Your task to perform on an android device: delete browsing data in the chrome app Image 0: 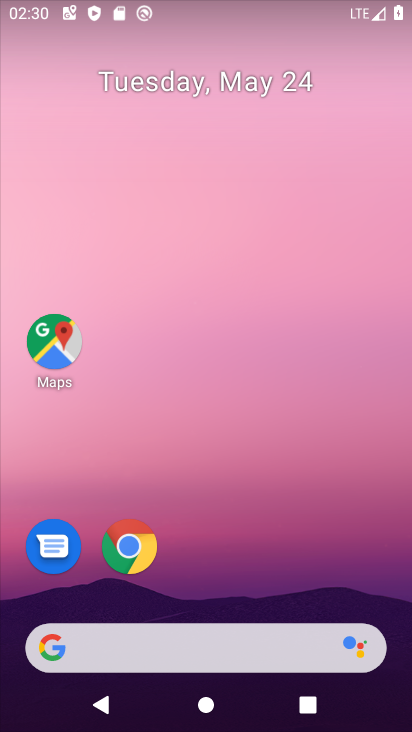
Step 0: drag from (186, 593) to (252, 131)
Your task to perform on an android device: delete browsing data in the chrome app Image 1: 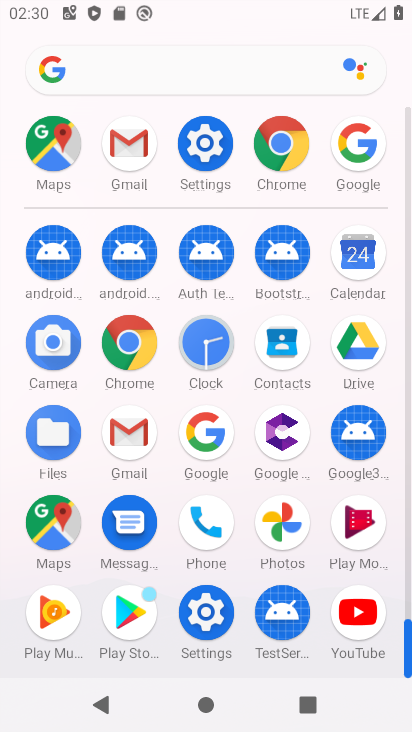
Step 1: click (126, 341)
Your task to perform on an android device: delete browsing data in the chrome app Image 2: 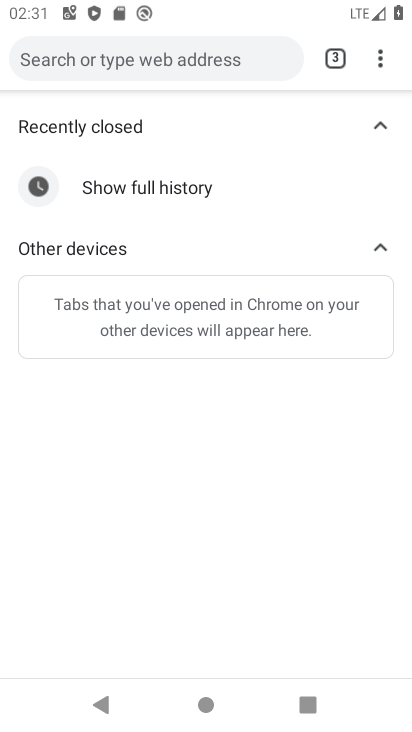
Step 2: click (377, 60)
Your task to perform on an android device: delete browsing data in the chrome app Image 3: 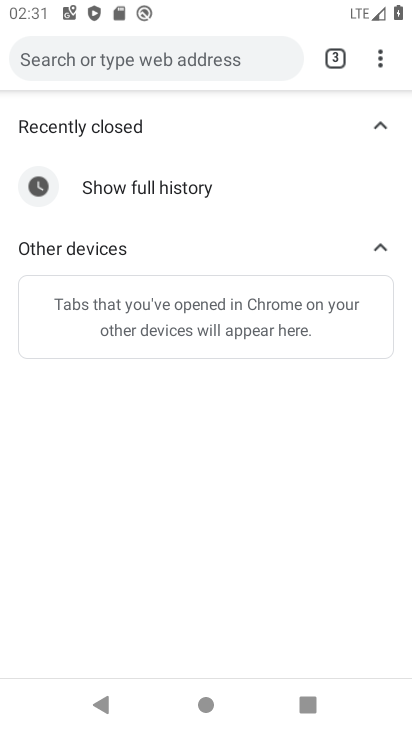
Step 3: click (373, 61)
Your task to perform on an android device: delete browsing data in the chrome app Image 4: 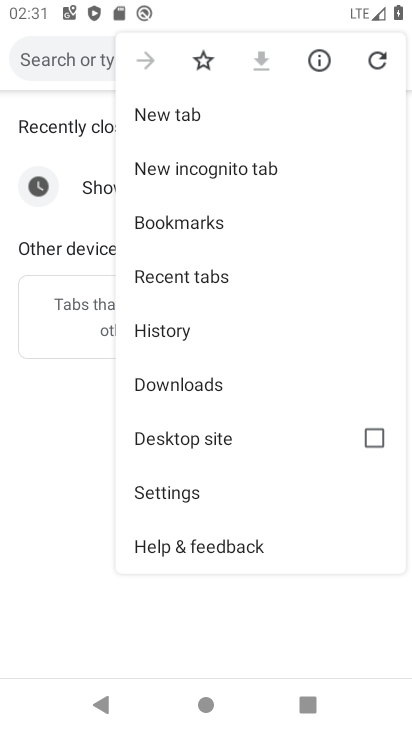
Step 4: click (169, 331)
Your task to perform on an android device: delete browsing data in the chrome app Image 5: 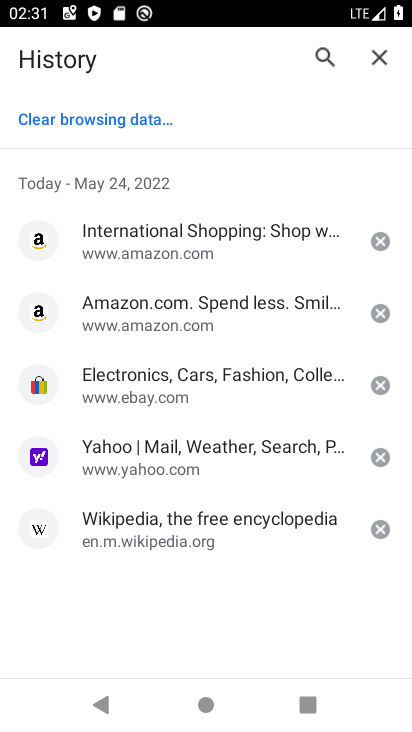
Step 5: click (74, 129)
Your task to perform on an android device: delete browsing data in the chrome app Image 6: 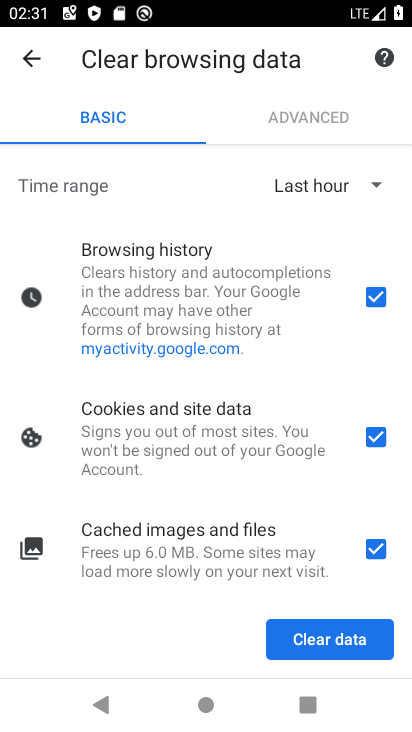
Step 6: click (334, 632)
Your task to perform on an android device: delete browsing data in the chrome app Image 7: 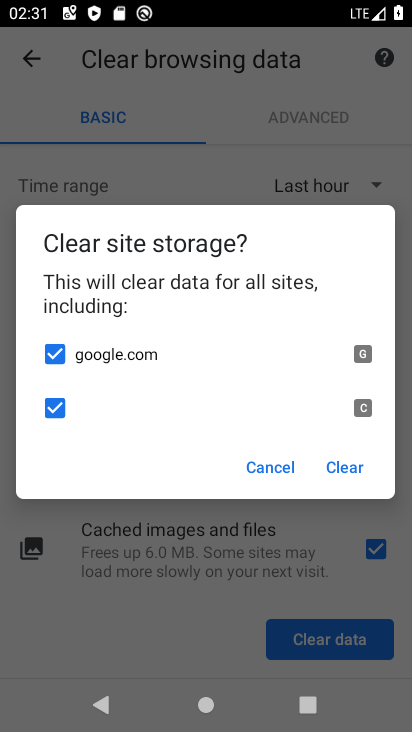
Step 7: click (271, 461)
Your task to perform on an android device: delete browsing data in the chrome app Image 8: 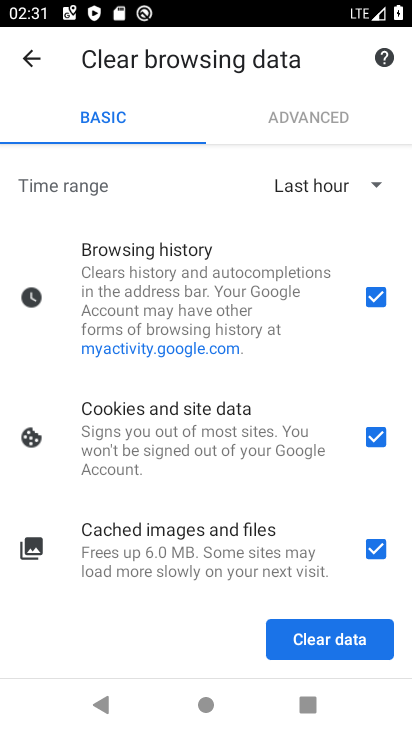
Step 8: click (328, 190)
Your task to perform on an android device: delete browsing data in the chrome app Image 9: 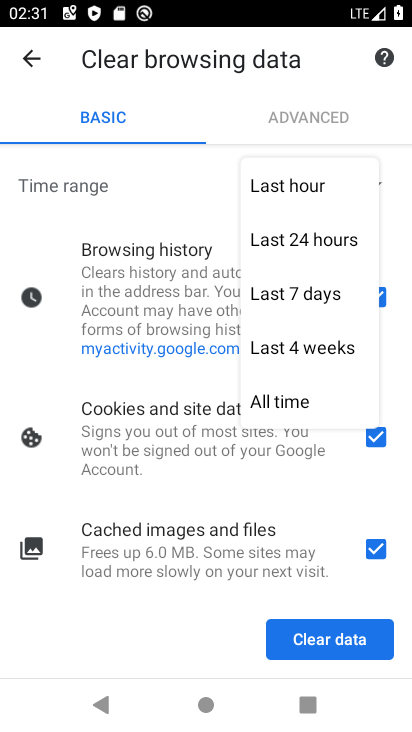
Step 9: click (286, 403)
Your task to perform on an android device: delete browsing data in the chrome app Image 10: 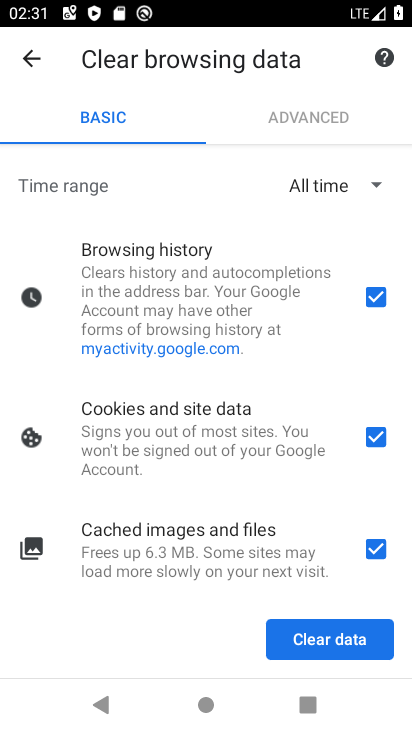
Step 10: click (305, 644)
Your task to perform on an android device: delete browsing data in the chrome app Image 11: 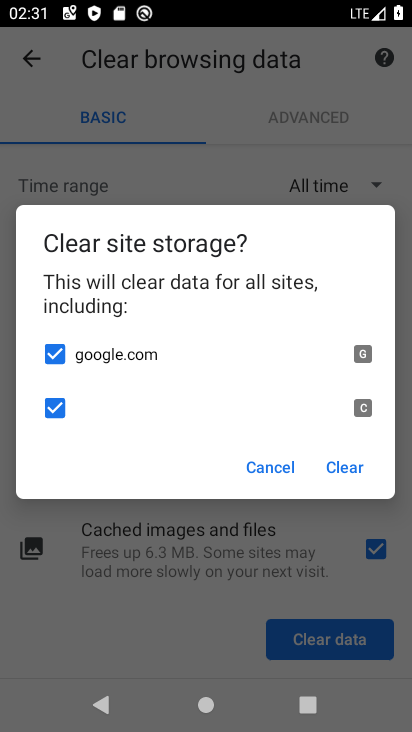
Step 11: click (353, 467)
Your task to perform on an android device: delete browsing data in the chrome app Image 12: 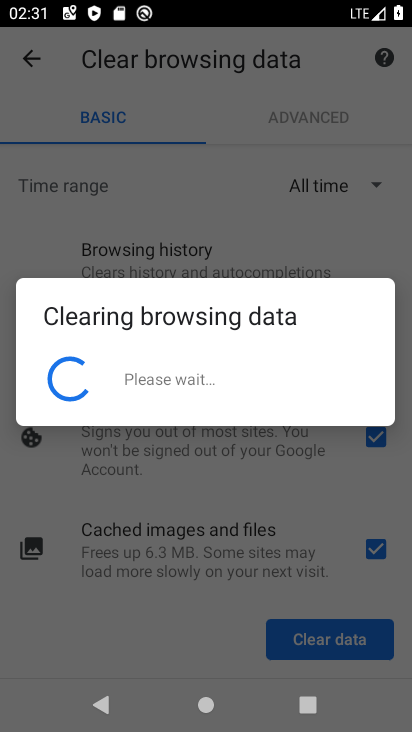
Step 12: task complete